Your task to perform on an android device: What is the news today? Image 0: 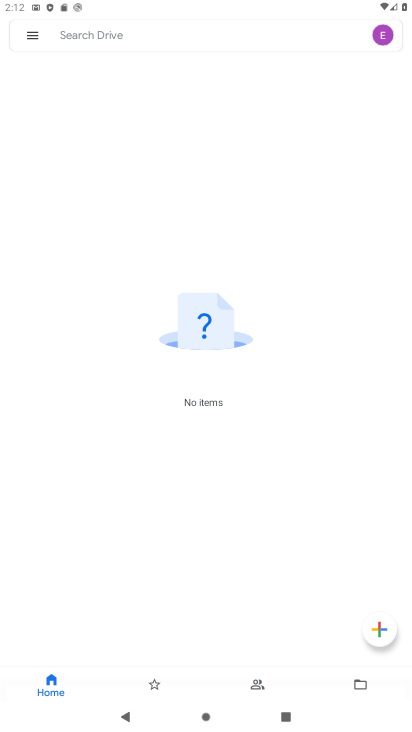
Step 0: press home button
Your task to perform on an android device: What is the news today? Image 1: 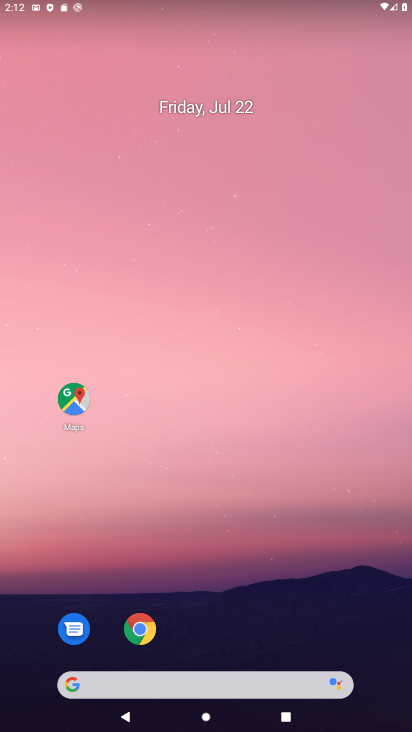
Step 1: click (132, 681)
Your task to perform on an android device: What is the news today? Image 2: 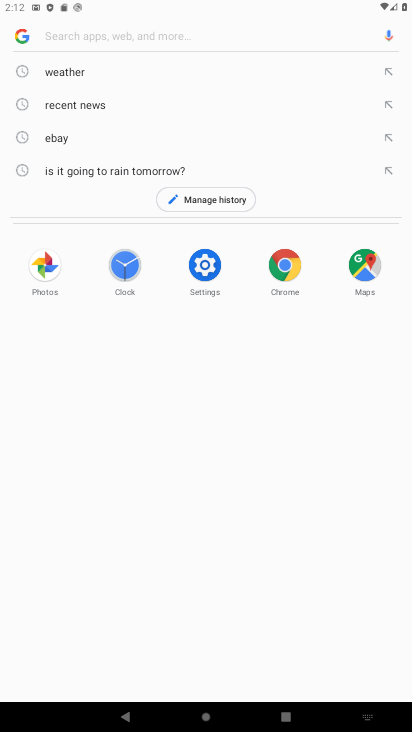
Step 2: click (18, 39)
Your task to perform on an android device: What is the news today? Image 3: 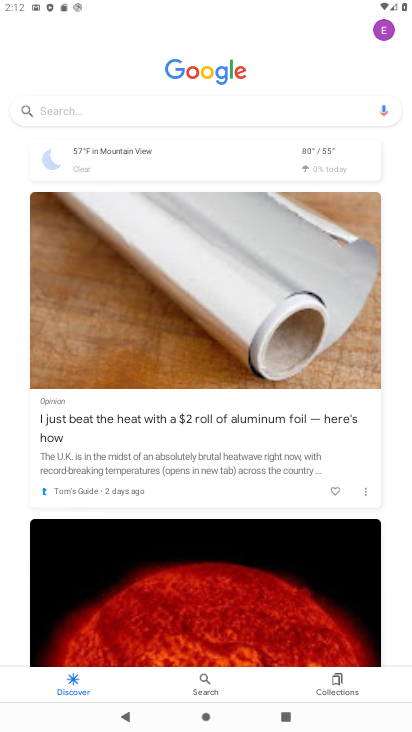
Step 3: task complete